Your task to perform on an android device: move a message to another label in the gmail app Image 0: 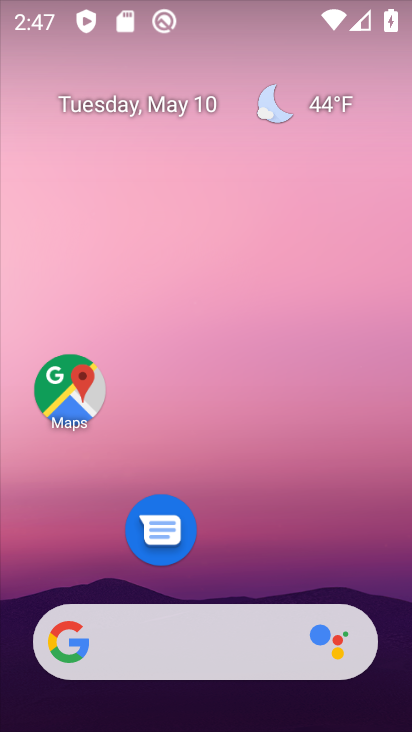
Step 0: drag from (218, 546) to (165, 33)
Your task to perform on an android device: move a message to another label in the gmail app Image 1: 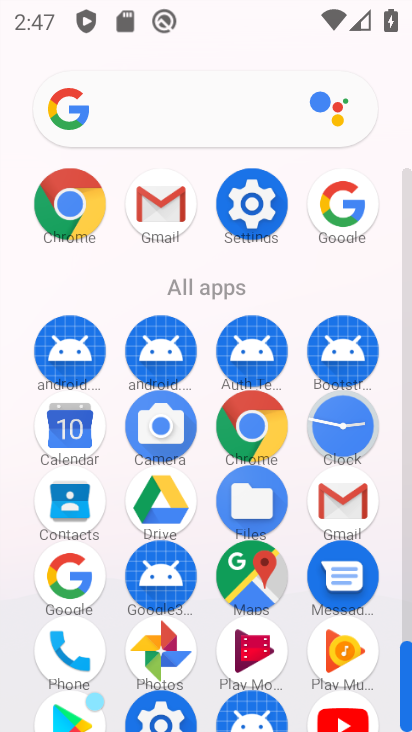
Step 1: click (164, 201)
Your task to perform on an android device: move a message to another label in the gmail app Image 2: 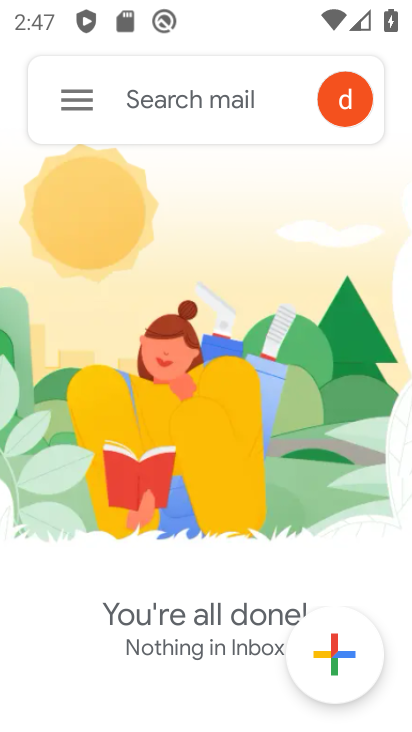
Step 2: click (76, 106)
Your task to perform on an android device: move a message to another label in the gmail app Image 3: 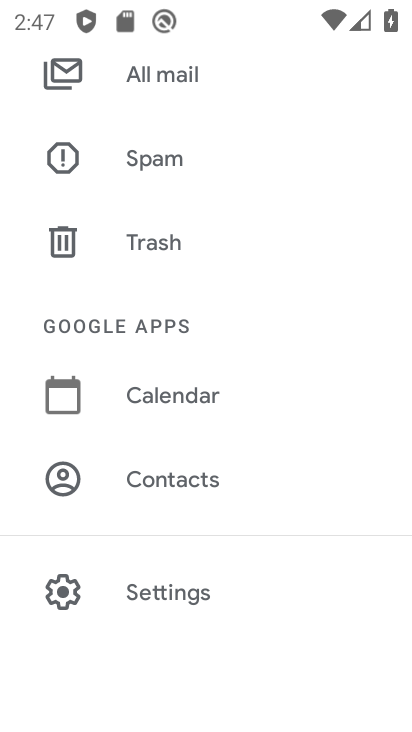
Step 3: click (145, 85)
Your task to perform on an android device: move a message to another label in the gmail app Image 4: 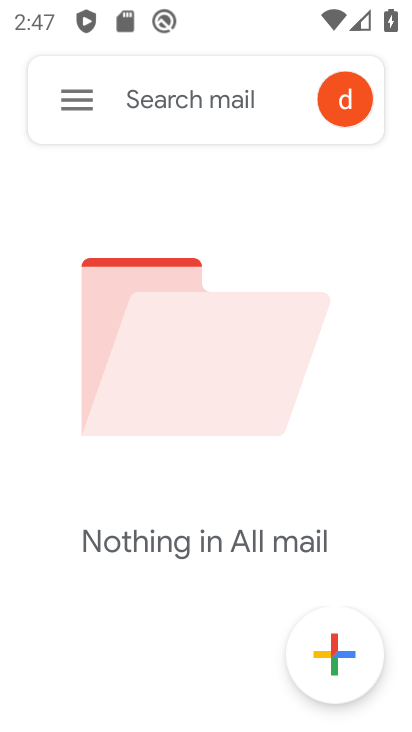
Step 4: task complete